Your task to perform on an android device: Show me popular videos on Youtube Image 0: 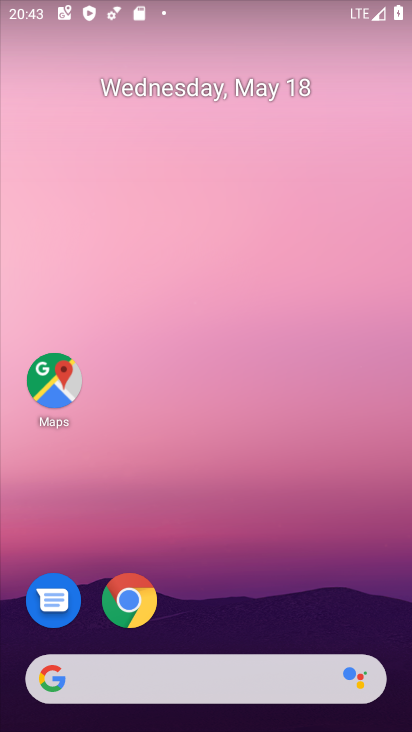
Step 0: drag from (193, 588) to (274, 50)
Your task to perform on an android device: Show me popular videos on Youtube Image 1: 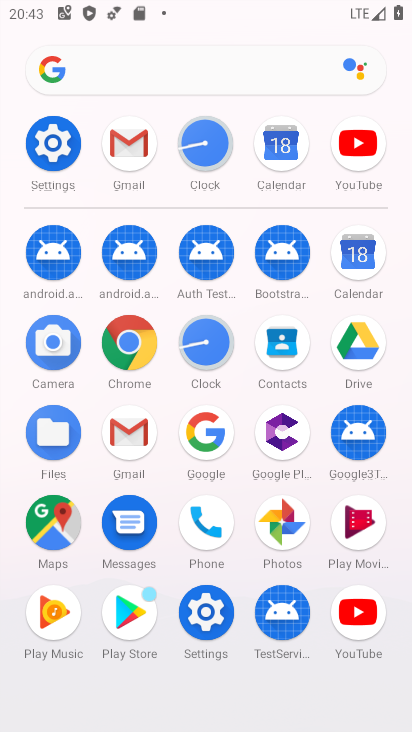
Step 1: click (354, 640)
Your task to perform on an android device: Show me popular videos on Youtube Image 2: 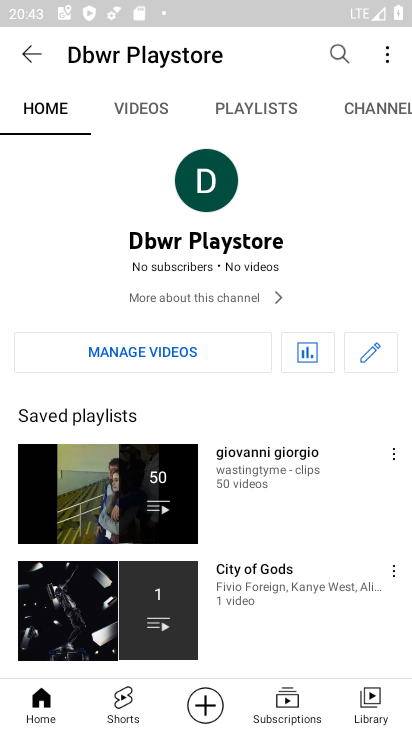
Step 2: click (26, 48)
Your task to perform on an android device: Show me popular videos on Youtube Image 3: 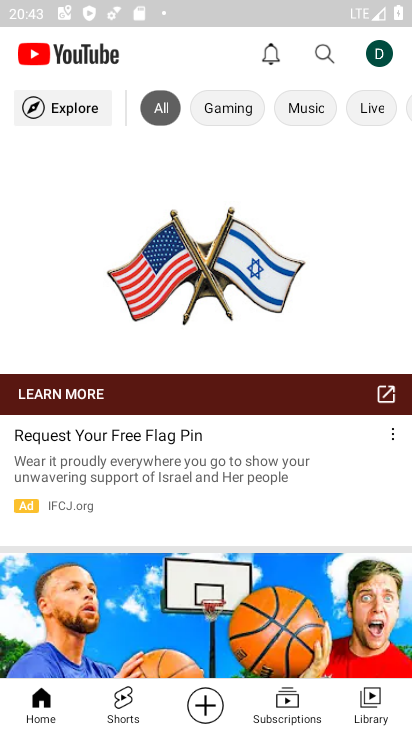
Step 3: drag from (165, 590) to (119, 694)
Your task to perform on an android device: Show me popular videos on Youtube Image 4: 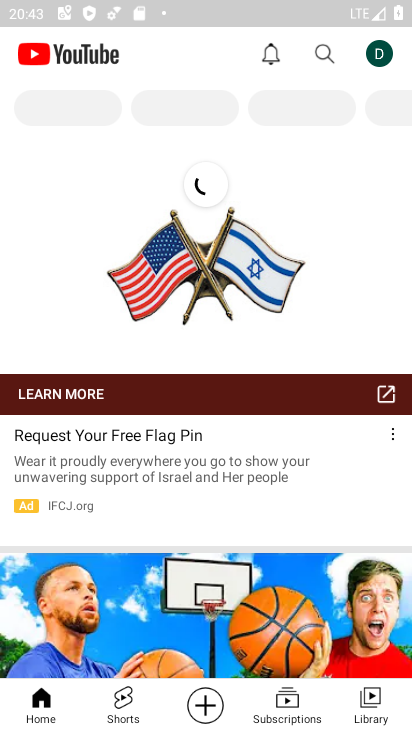
Step 4: click (66, 98)
Your task to perform on an android device: Show me popular videos on Youtube Image 5: 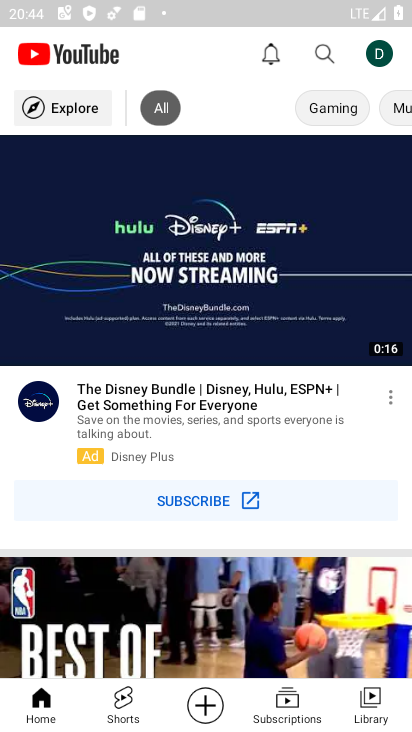
Step 5: click (70, 108)
Your task to perform on an android device: Show me popular videos on Youtube Image 6: 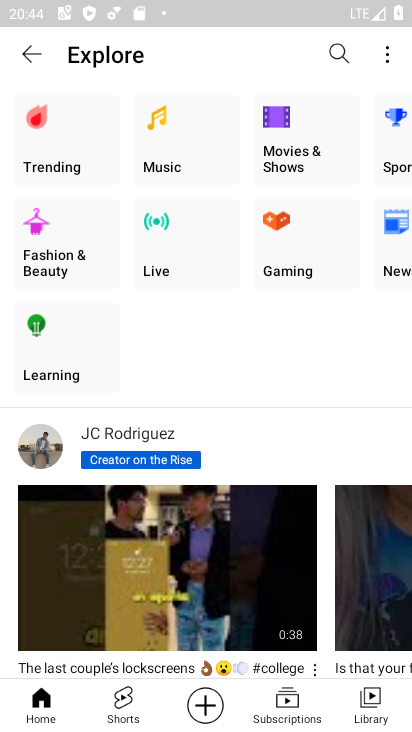
Step 6: task complete